Your task to perform on an android device: Play the last video I watched on Youtube Image 0: 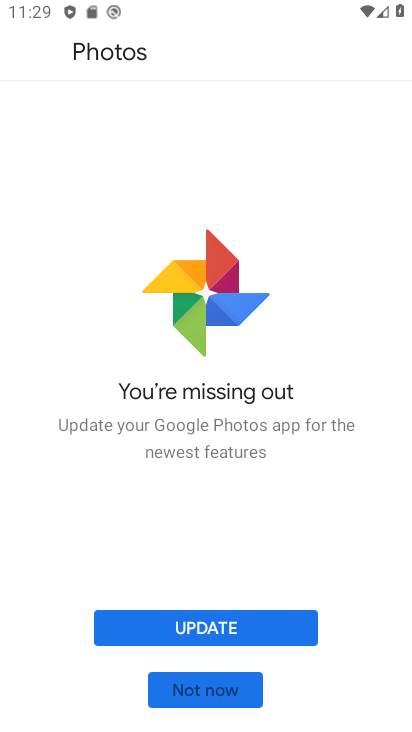
Step 0: press back button
Your task to perform on an android device: Play the last video I watched on Youtube Image 1: 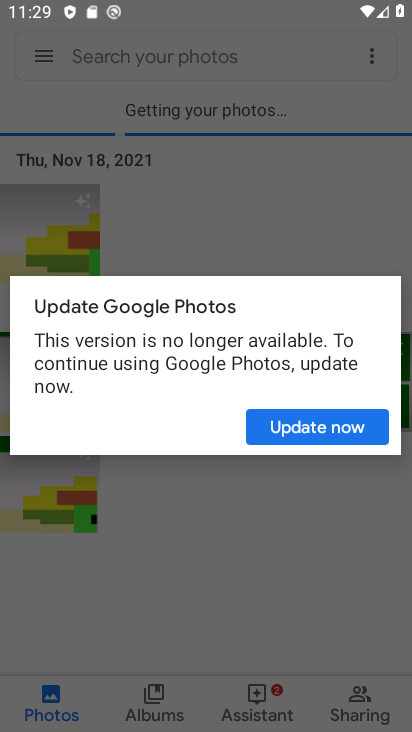
Step 1: press back button
Your task to perform on an android device: Play the last video I watched on Youtube Image 2: 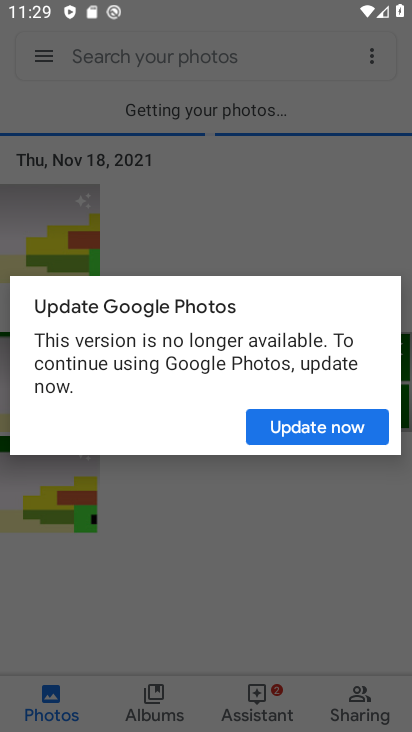
Step 2: press home button
Your task to perform on an android device: Play the last video I watched on Youtube Image 3: 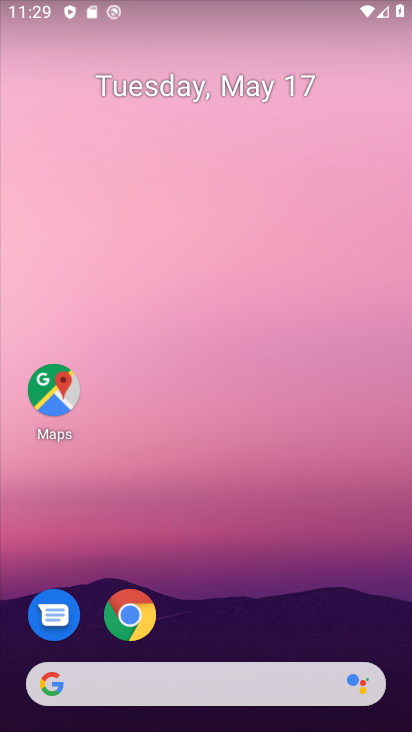
Step 3: drag from (299, 558) to (273, 45)
Your task to perform on an android device: Play the last video I watched on Youtube Image 4: 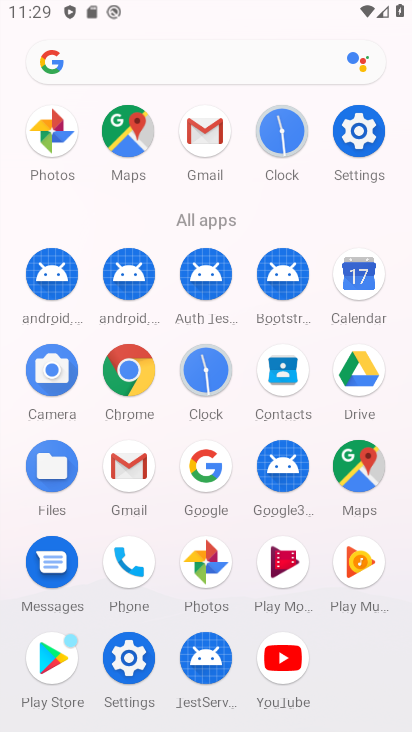
Step 4: drag from (229, 223) to (220, 138)
Your task to perform on an android device: Play the last video I watched on Youtube Image 5: 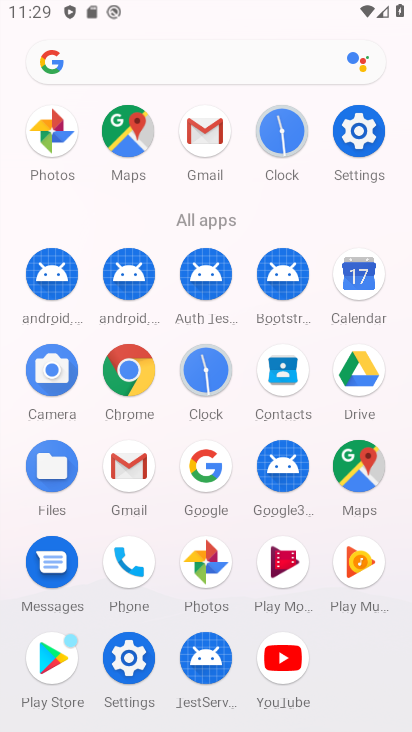
Step 5: click (279, 662)
Your task to perform on an android device: Play the last video I watched on Youtube Image 6: 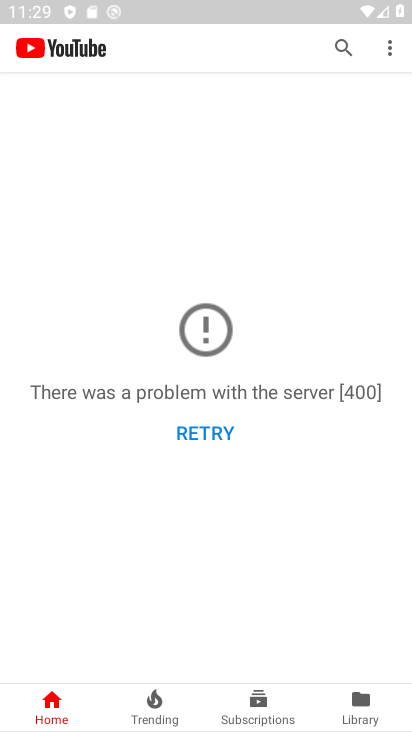
Step 6: click (368, 701)
Your task to perform on an android device: Play the last video I watched on Youtube Image 7: 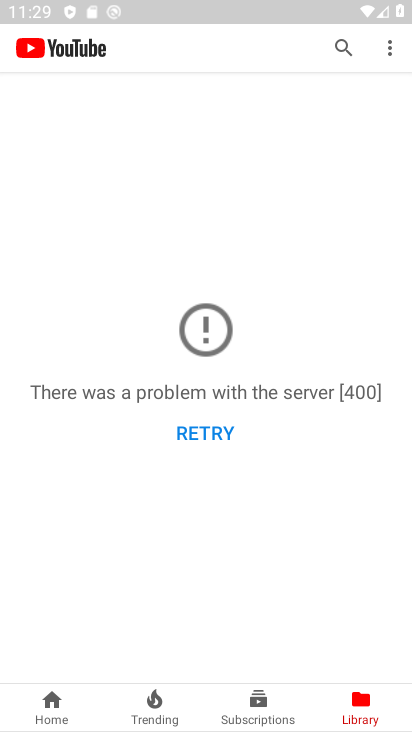
Step 7: click (215, 429)
Your task to perform on an android device: Play the last video I watched on Youtube Image 8: 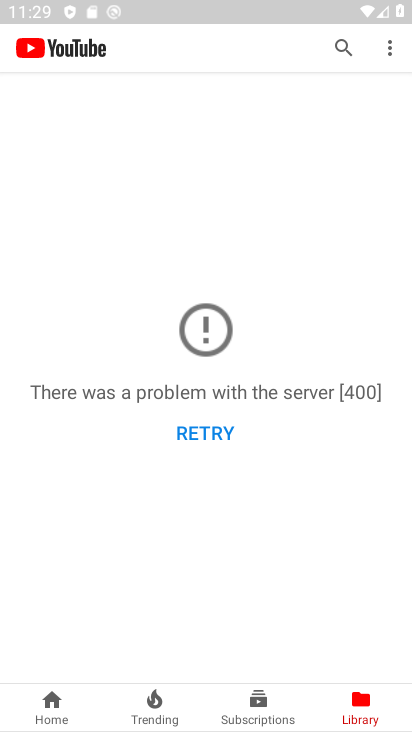
Step 8: click (215, 429)
Your task to perform on an android device: Play the last video I watched on Youtube Image 9: 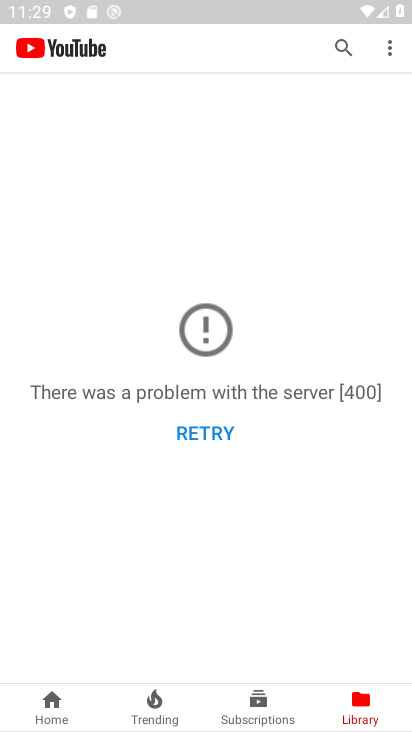
Step 9: click (215, 429)
Your task to perform on an android device: Play the last video I watched on Youtube Image 10: 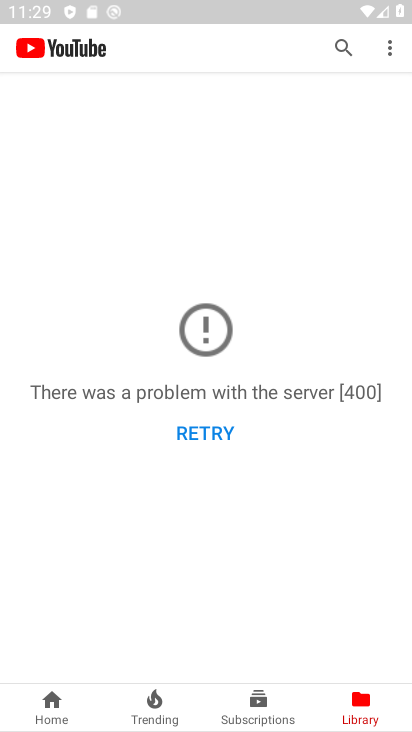
Step 10: click (215, 429)
Your task to perform on an android device: Play the last video I watched on Youtube Image 11: 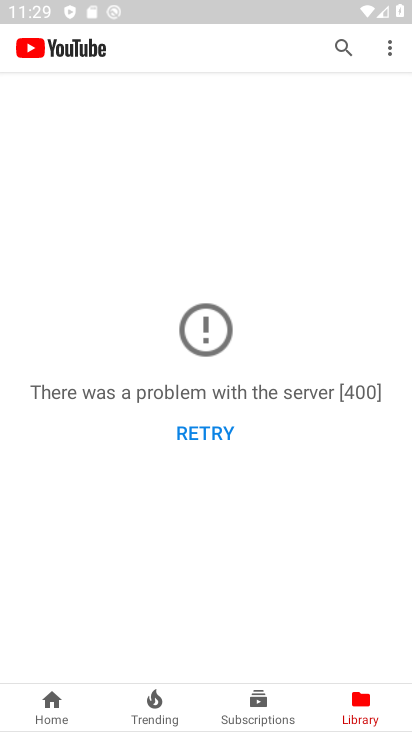
Step 11: task complete